Your task to perform on an android device: allow notifications from all sites in the chrome app Image 0: 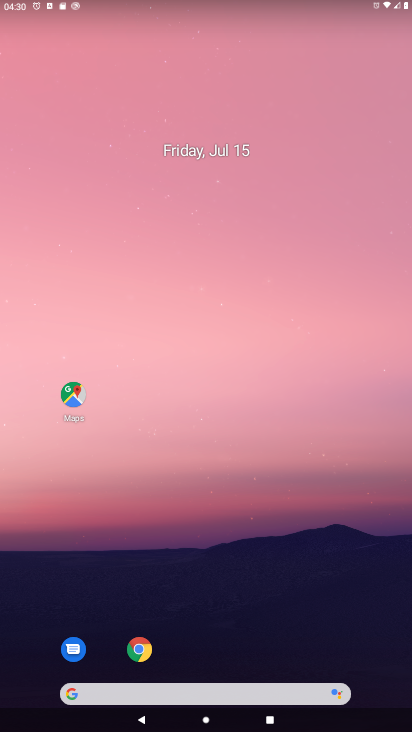
Step 0: click (141, 651)
Your task to perform on an android device: allow notifications from all sites in the chrome app Image 1: 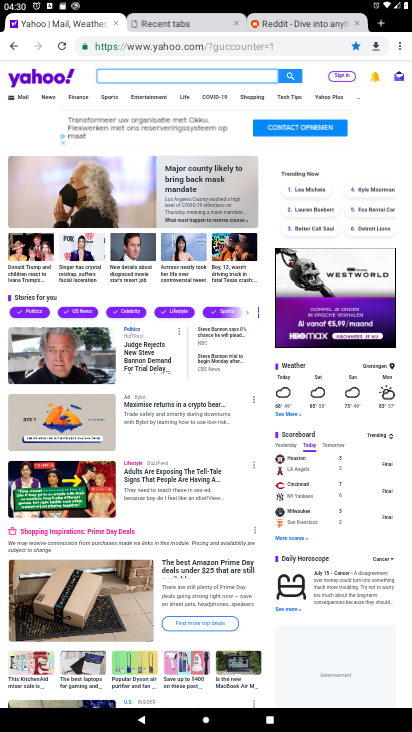
Step 1: click (399, 49)
Your task to perform on an android device: allow notifications from all sites in the chrome app Image 2: 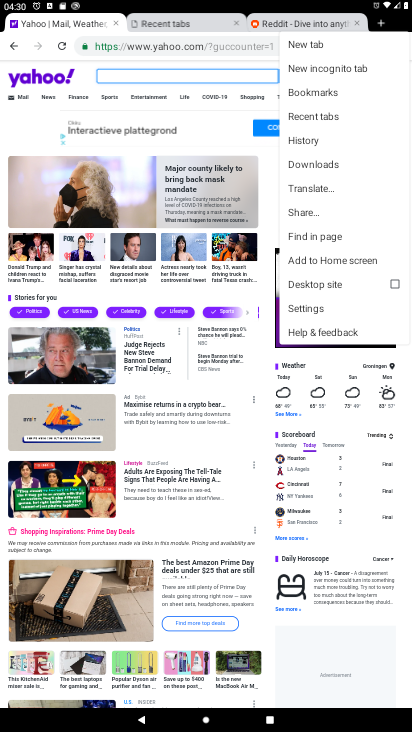
Step 2: click (307, 302)
Your task to perform on an android device: allow notifications from all sites in the chrome app Image 3: 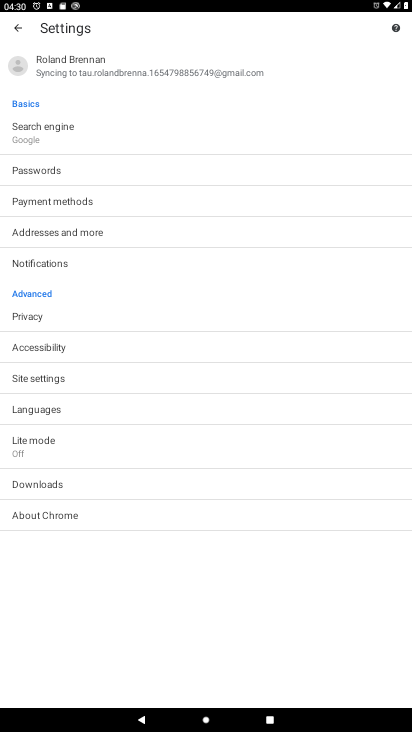
Step 3: click (39, 373)
Your task to perform on an android device: allow notifications from all sites in the chrome app Image 4: 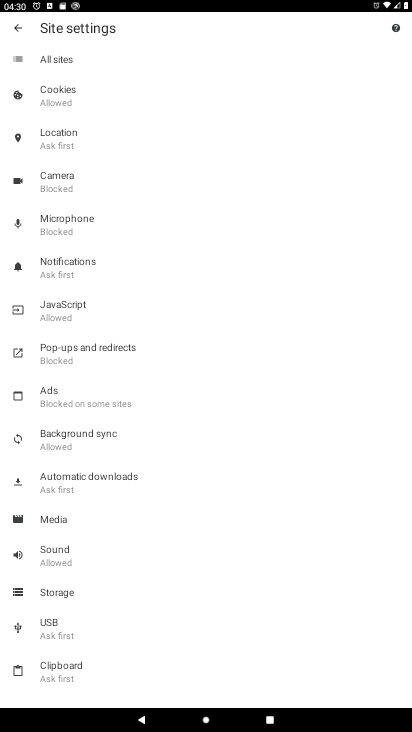
Step 4: click (63, 262)
Your task to perform on an android device: allow notifications from all sites in the chrome app Image 5: 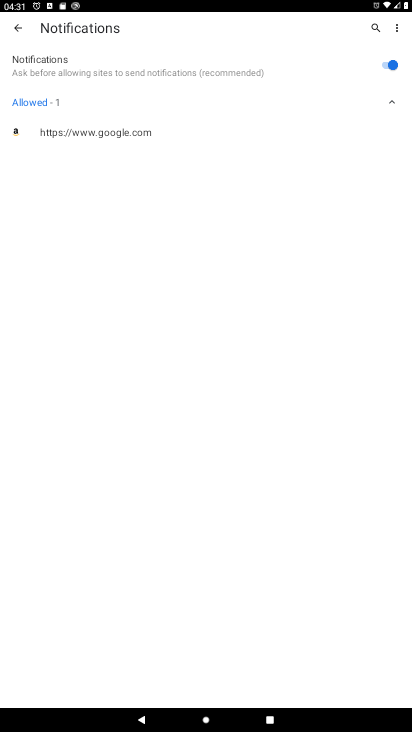
Step 5: task complete